Your task to perform on an android device: remove spam from my inbox in the gmail app Image 0: 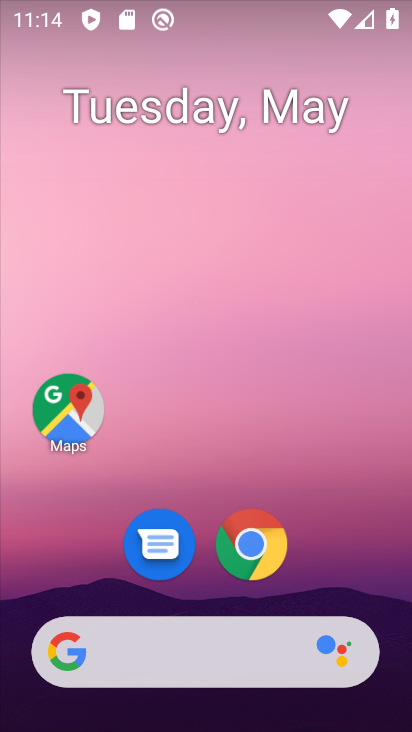
Step 0: drag from (387, 543) to (379, 264)
Your task to perform on an android device: remove spam from my inbox in the gmail app Image 1: 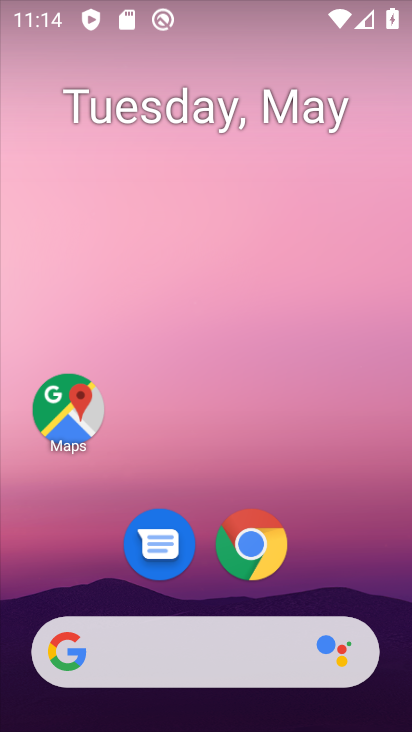
Step 1: click (317, 700)
Your task to perform on an android device: remove spam from my inbox in the gmail app Image 2: 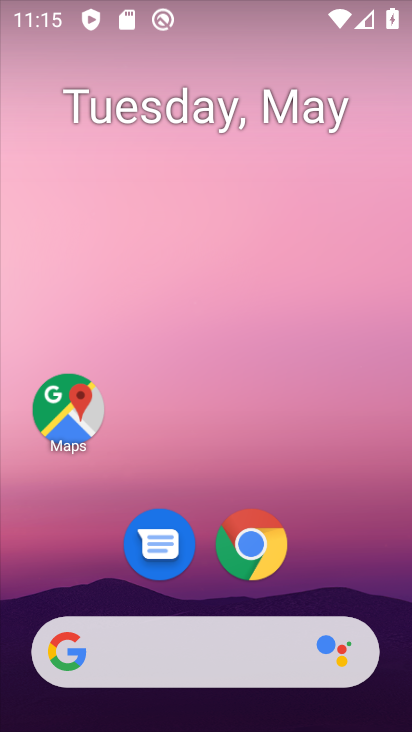
Step 2: drag from (389, 616) to (341, 264)
Your task to perform on an android device: remove spam from my inbox in the gmail app Image 3: 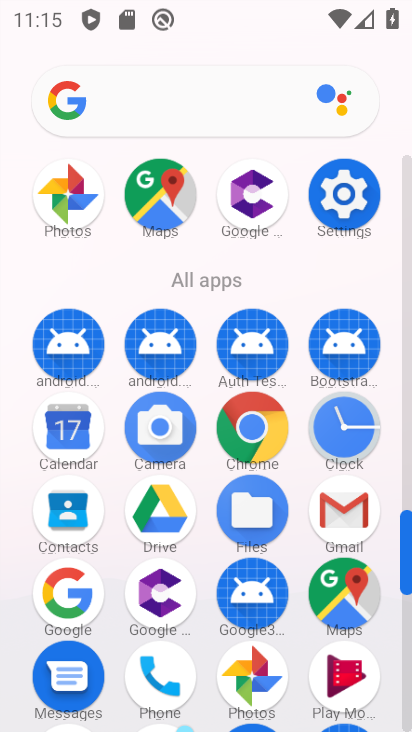
Step 3: click (322, 498)
Your task to perform on an android device: remove spam from my inbox in the gmail app Image 4: 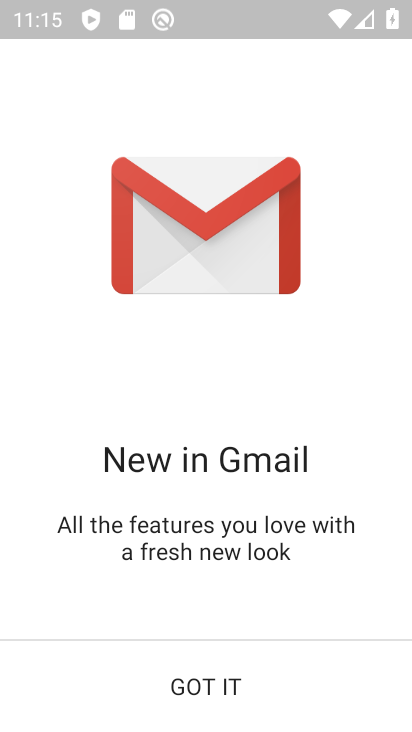
Step 4: click (224, 673)
Your task to perform on an android device: remove spam from my inbox in the gmail app Image 5: 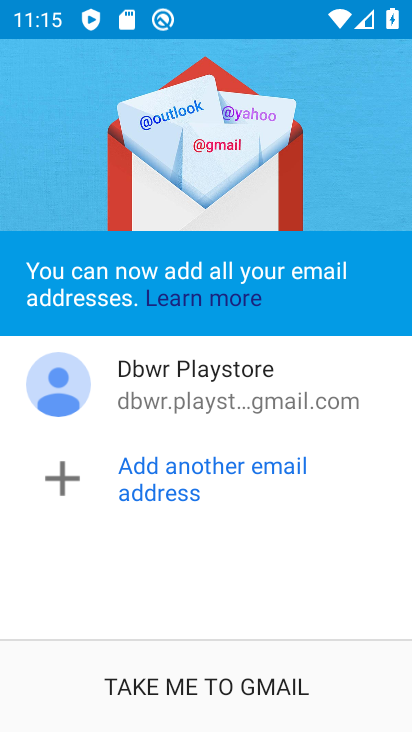
Step 5: click (224, 673)
Your task to perform on an android device: remove spam from my inbox in the gmail app Image 6: 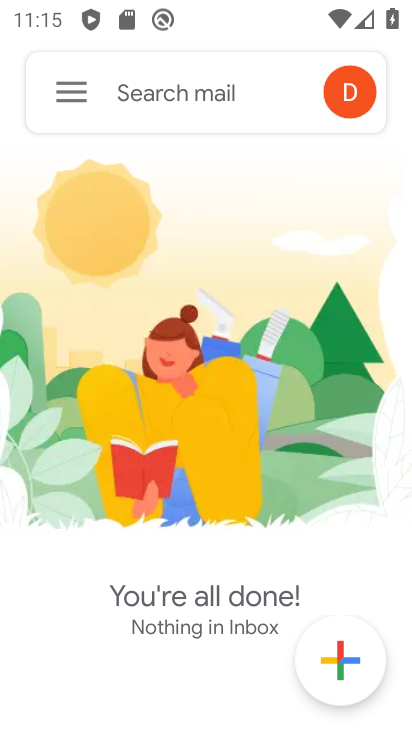
Step 6: click (85, 89)
Your task to perform on an android device: remove spam from my inbox in the gmail app Image 7: 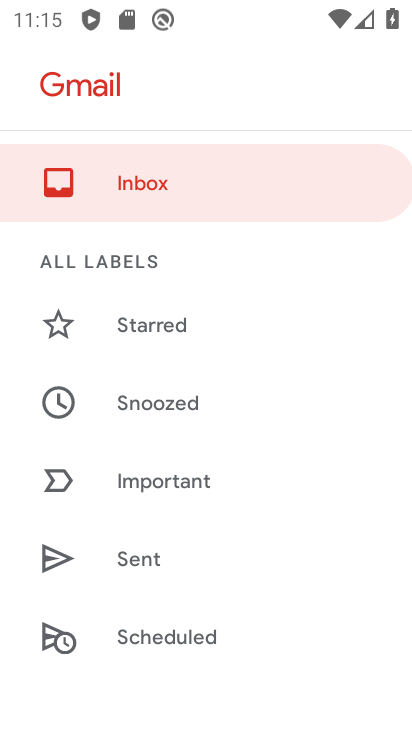
Step 7: drag from (305, 495) to (283, 251)
Your task to perform on an android device: remove spam from my inbox in the gmail app Image 8: 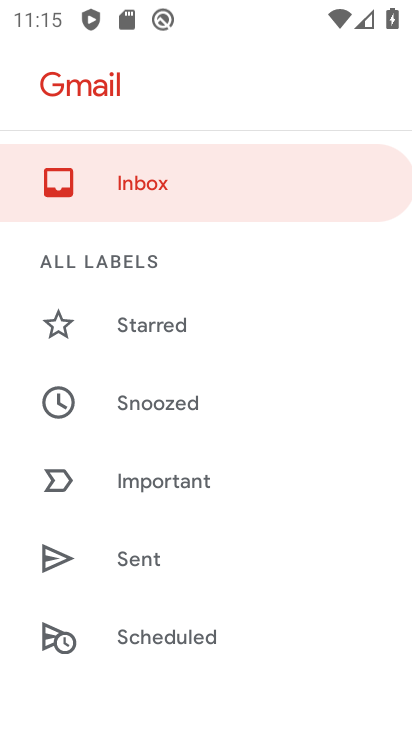
Step 8: drag from (291, 654) to (232, 422)
Your task to perform on an android device: remove spam from my inbox in the gmail app Image 9: 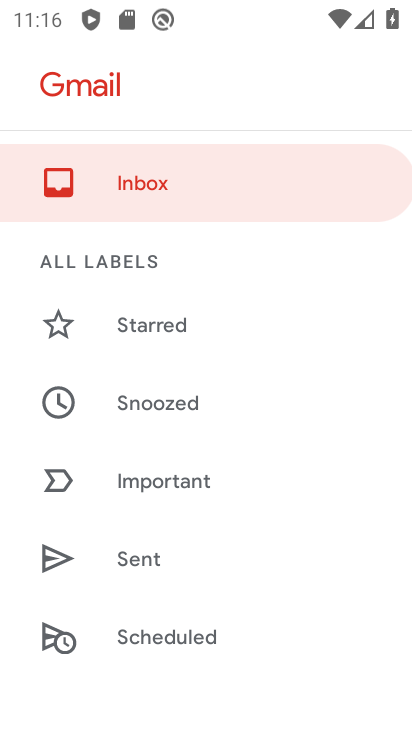
Step 9: drag from (262, 561) to (265, 383)
Your task to perform on an android device: remove spam from my inbox in the gmail app Image 10: 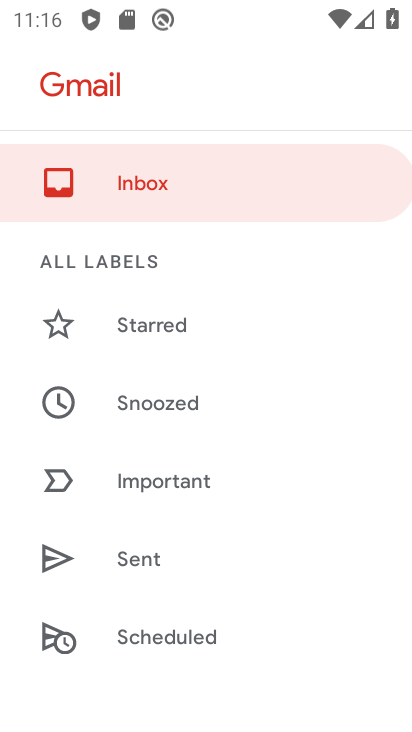
Step 10: click (303, 486)
Your task to perform on an android device: remove spam from my inbox in the gmail app Image 11: 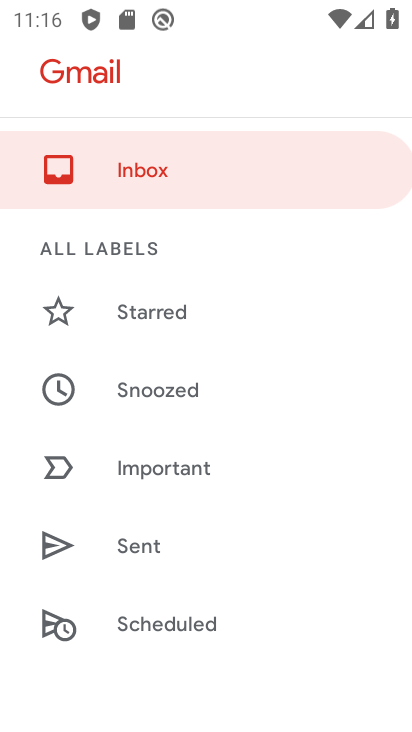
Step 11: drag from (327, 536) to (255, 220)
Your task to perform on an android device: remove spam from my inbox in the gmail app Image 12: 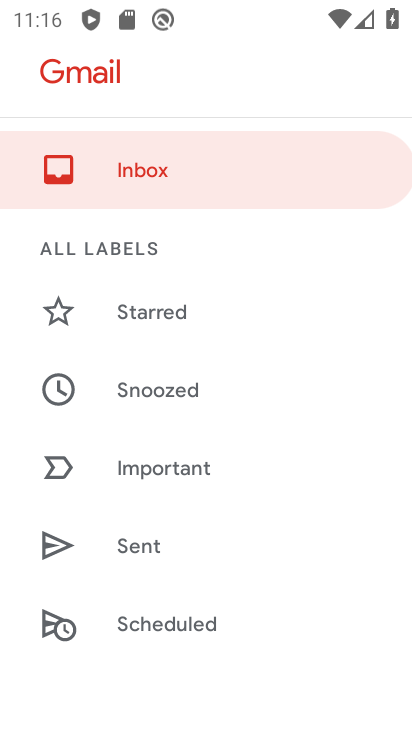
Step 12: drag from (316, 617) to (264, 370)
Your task to perform on an android device: remove spam from my inbox in the gmail app Image 13: 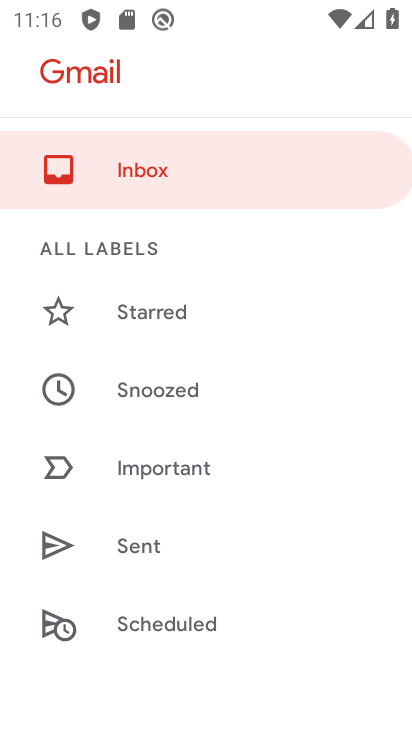
Step 13: drag from (341, 598) to (359, 450)
Your task to perform on an android device: remove spam from my inbox in the gmail app Image 14: 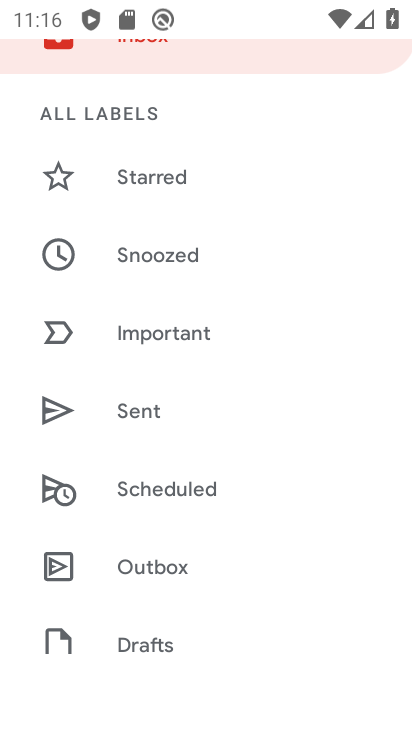
Step 14: drag from (298, 636) to (253, 305)
Your task to perform on an android device: remove spam from my inbox in the gmail app Image 15: 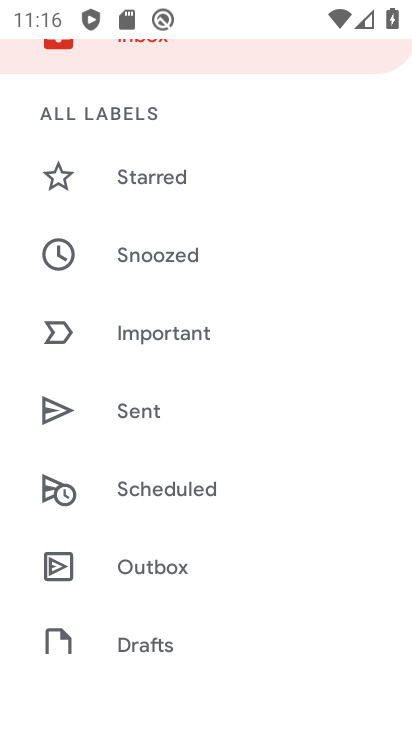
Step 15: drag from (318, 563) to (286, 358)
Your task to perform on an android device: remove spam from my inbox in the gmail app Image 16: 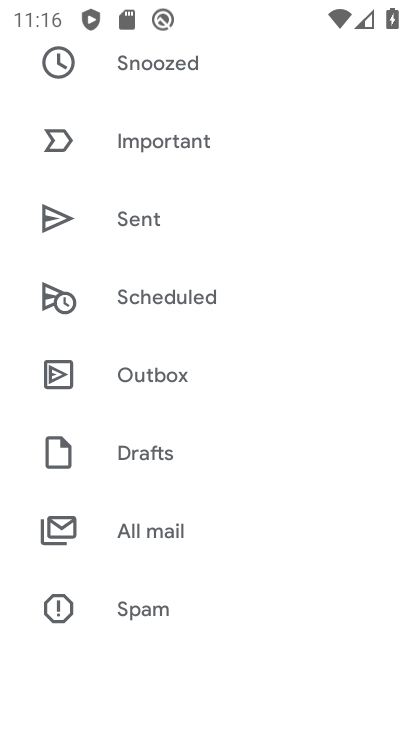
Step 16: click (133, 607)
Your task to perform on an android device: remove spam from my inbox in the gmail app Image 17: 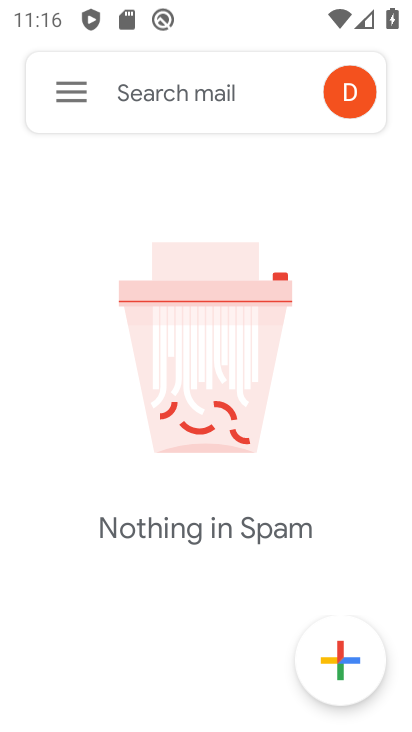
Step 17: task complete